Your task to perform on an android device: open app "Adobe Acrobat Reader" Image 0: 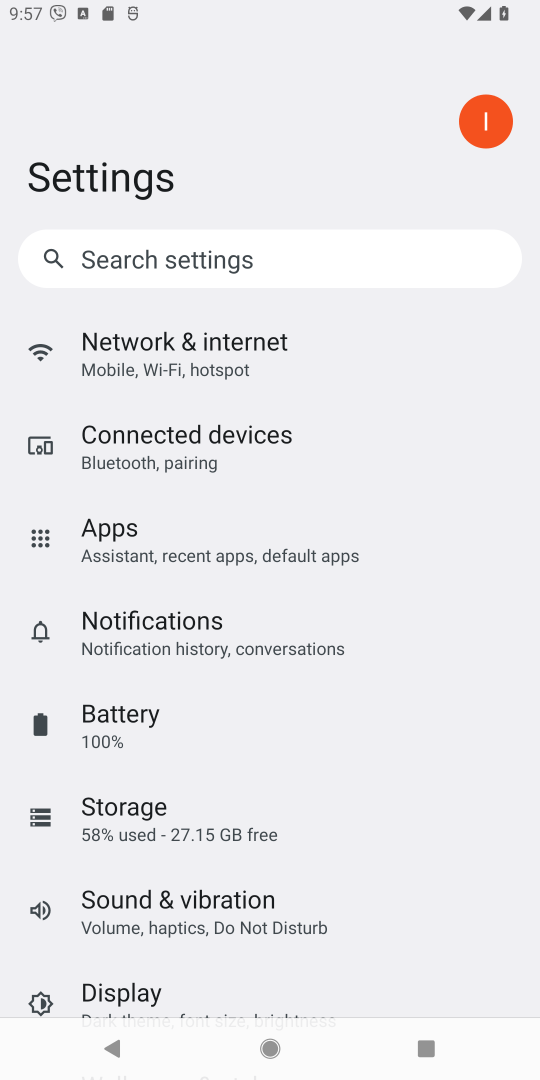
Step 0: press home button
Your task to perform on an android device: open app "Adobe Acrobat Reader" Image 1: 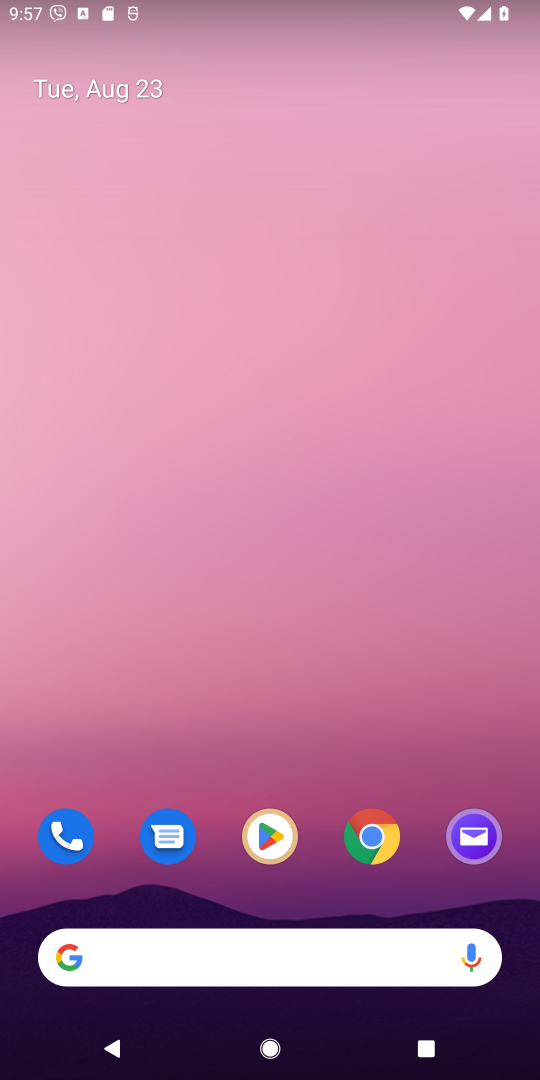
Step 1: click (268, 836)
Your task to perform on an android device: open app "Adobe Acrobat Reader" Image 2: 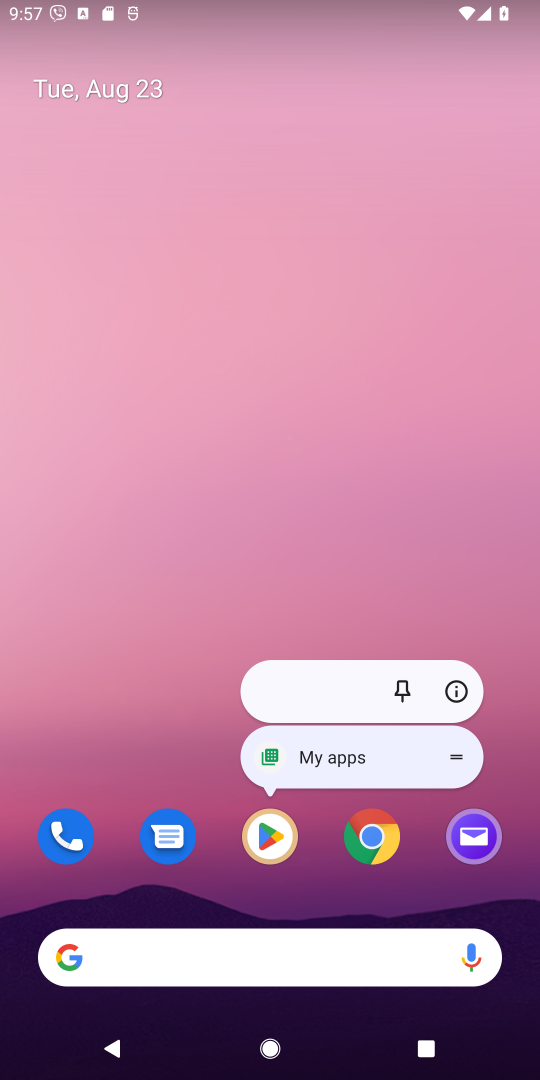
Step 2: click (268, 837)
Your task to perform on an android device: open app "Adobe Acrobat Reader" Image 3: 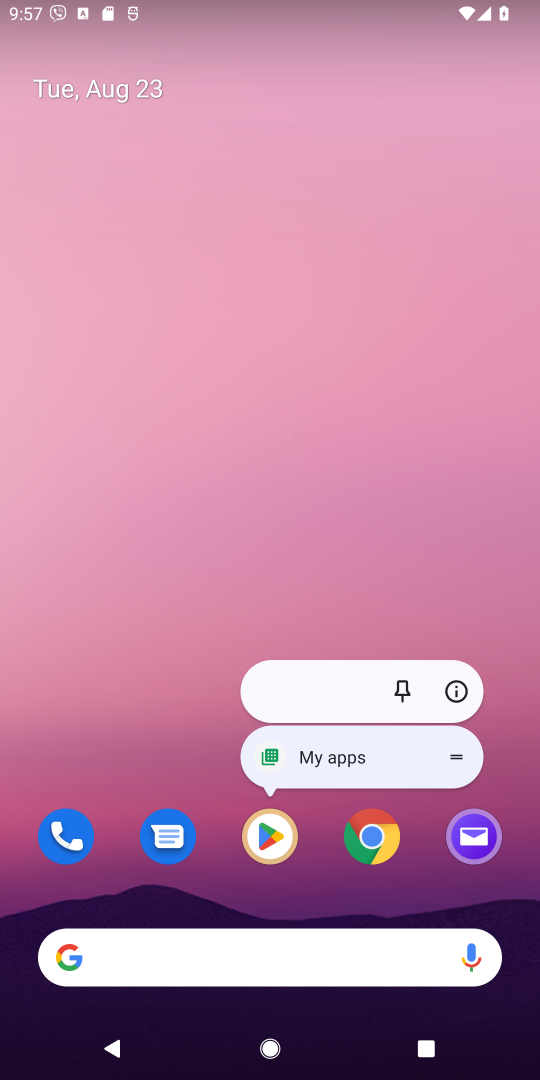
Step 3: click (268, 840)
Your task to perform on an android device: open app "Adobe Acrobat Reader" Image 4: 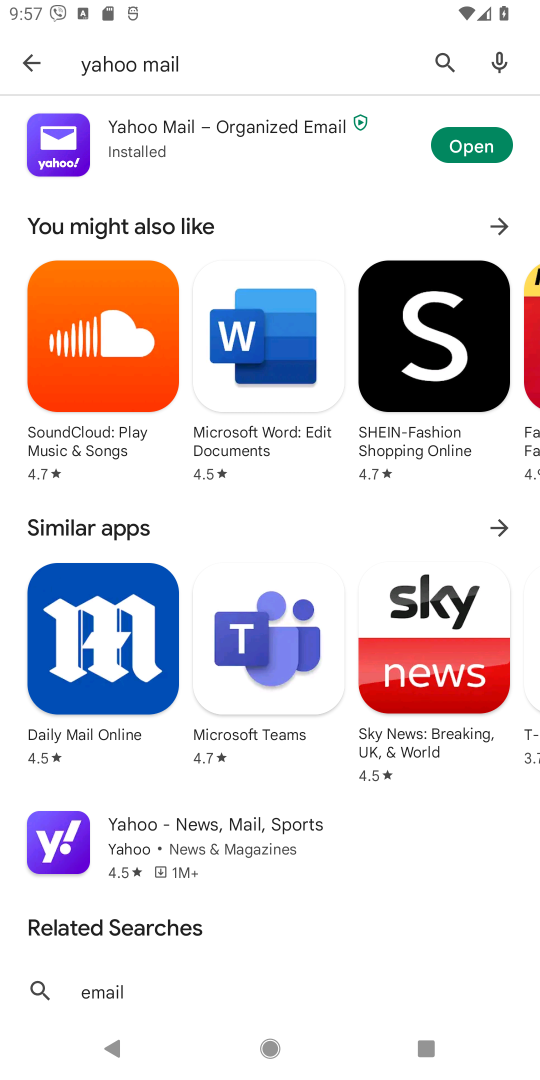
Step 4: click (443, 53)
Your task to perform on an android device: open app "Adobe Acrobat Reader" Image 5: 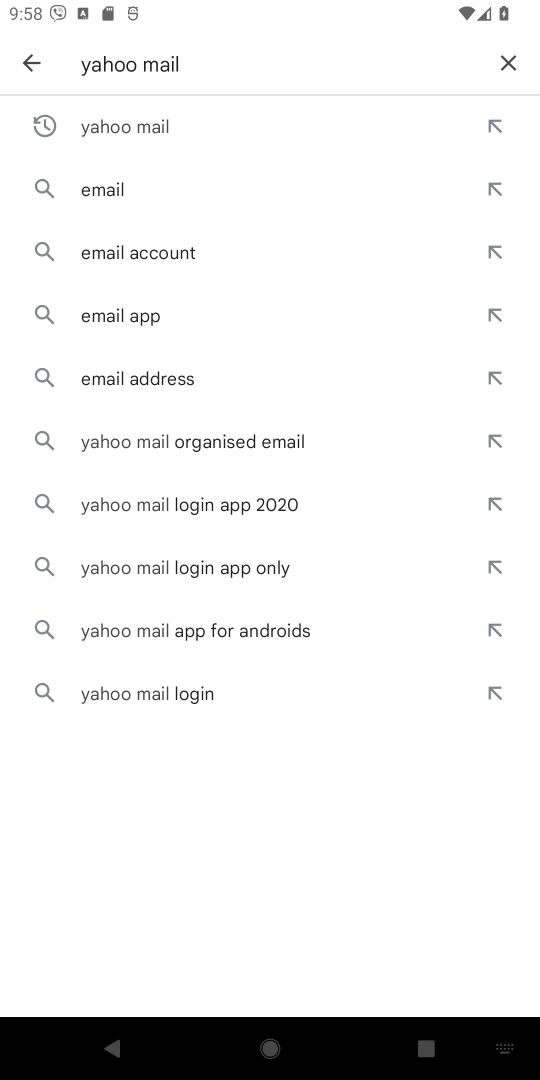
Step 5: click (506, 63)
Your task to perform on an android device: open app "Adobe Acrobat Reader" Image 6: 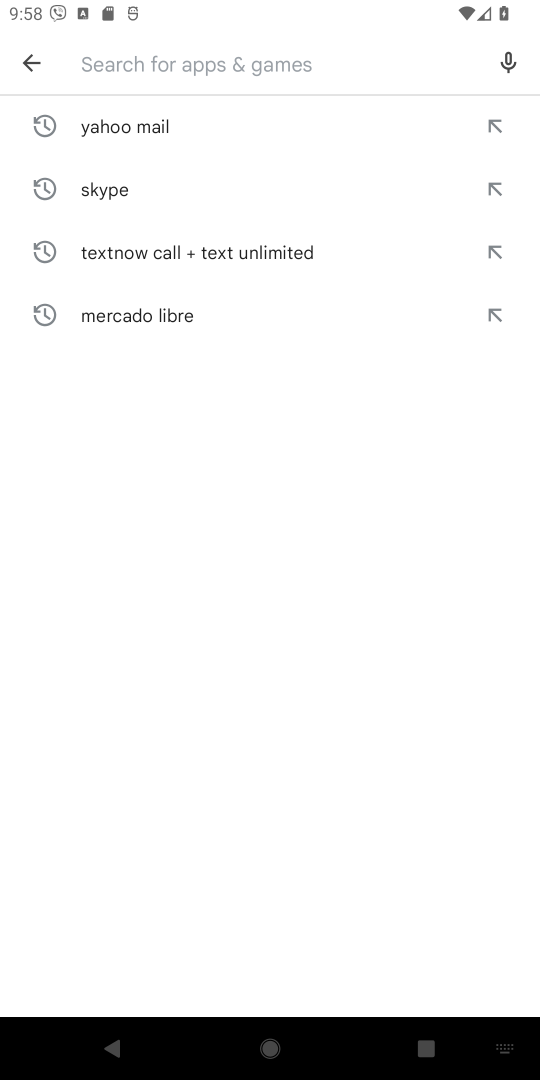
Step 6: type "Adobe Acrobat Reader"
Your task to perform on an android device: open app "Adobe Acrobat Reader" Image 7: 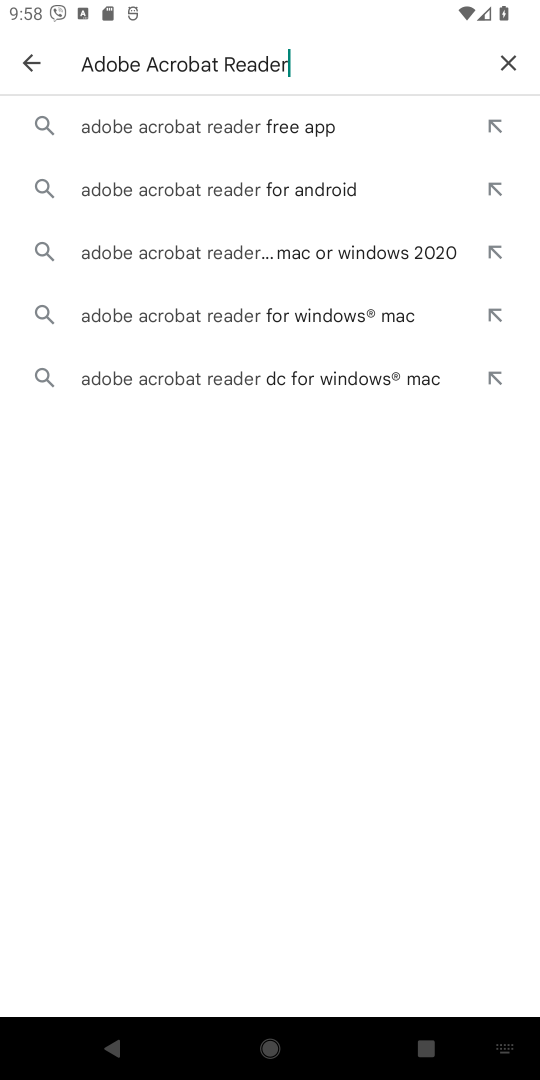
Step 7: click (144, 132)
Your task to perform on an android device: open app "Adobe Acrobat Reader" Image 8: 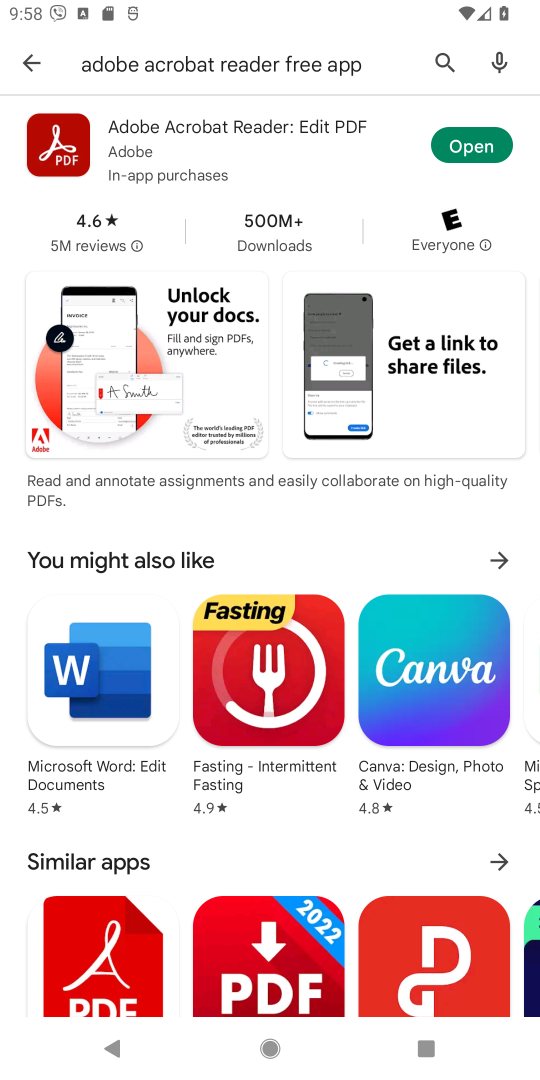
Step 8: click (477, 136)
Your task to perform on an android device: open app "Adobe Acrobat Reader" Image 9: 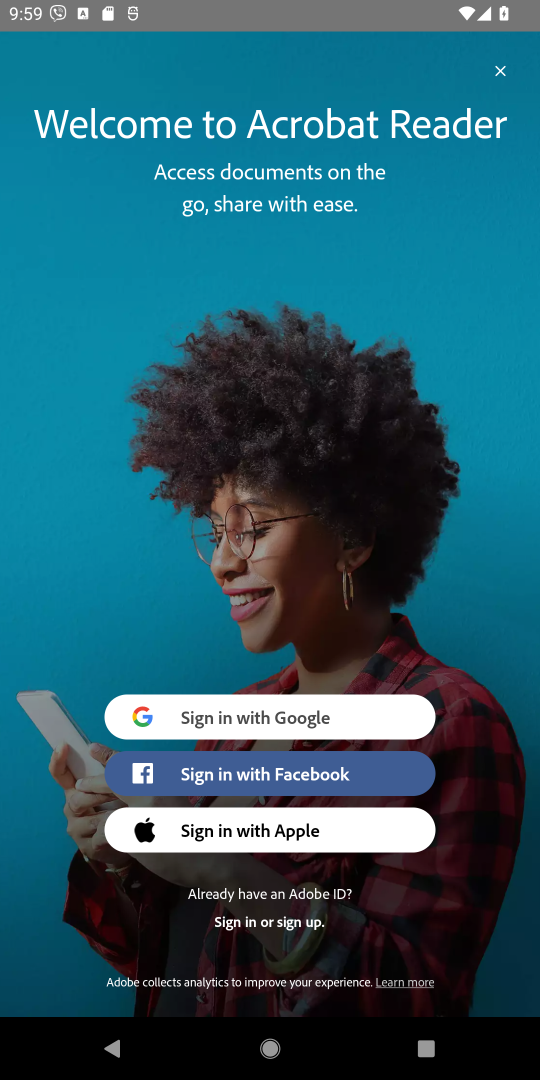
Step 9: task complete